Your task to perform on an android device: change the clock display to show seconds Image 0: 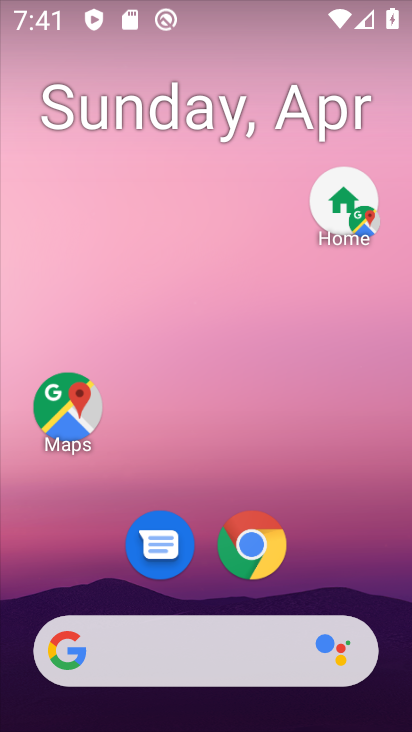
Step 0: drag from (330, 482) to (314, 133)
Your task to perform on an android device: change the clock display to show seconds Image 1: 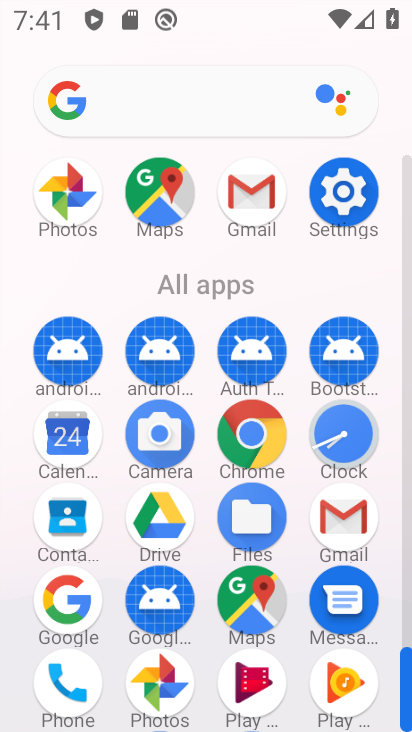
Step 1: click (350, 418)
Your task to perform on an android device: change the clock display to show seconds Image 2: 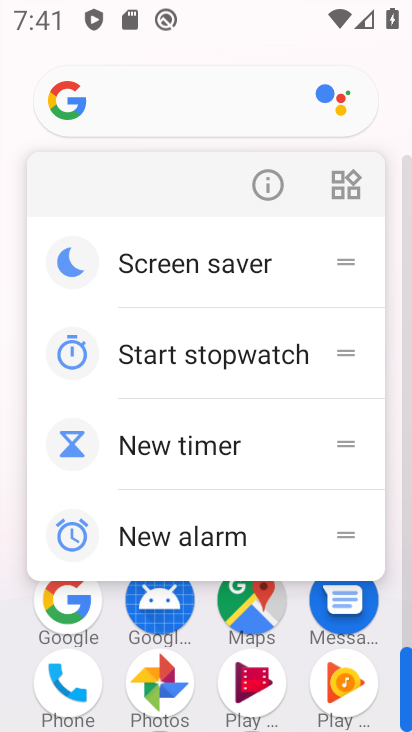
Step 2: press back button
Your task to perform on an android device: change the clock display to show seconds Image 3: 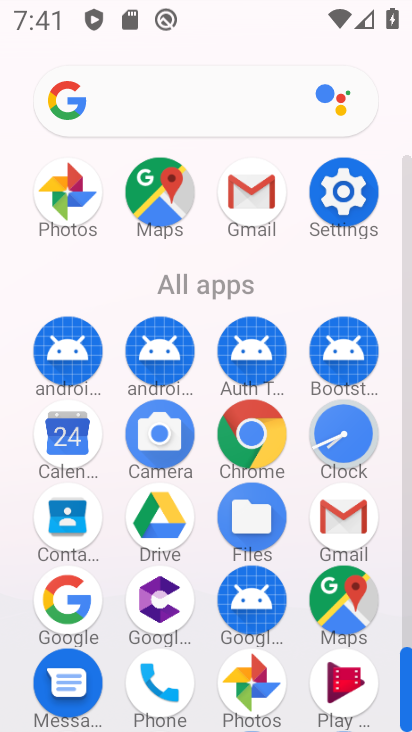
Step 3: click (332, 431)
Your task to perform on an android device: change the clock display to show seconds Image 4: 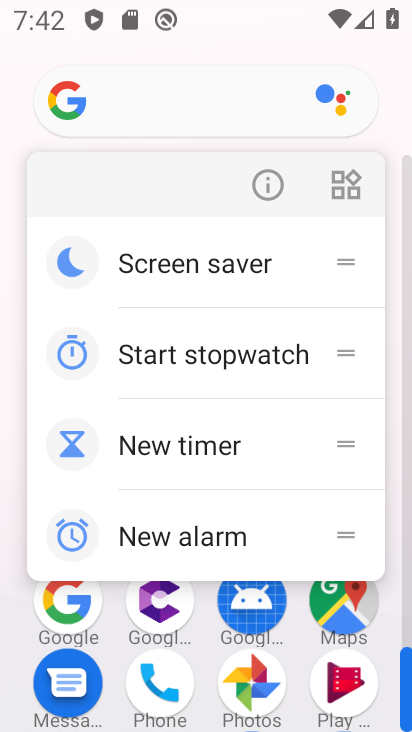
Step 4: press back button
Your task to perform on an android device: change the clock display to show seconds Image 5: 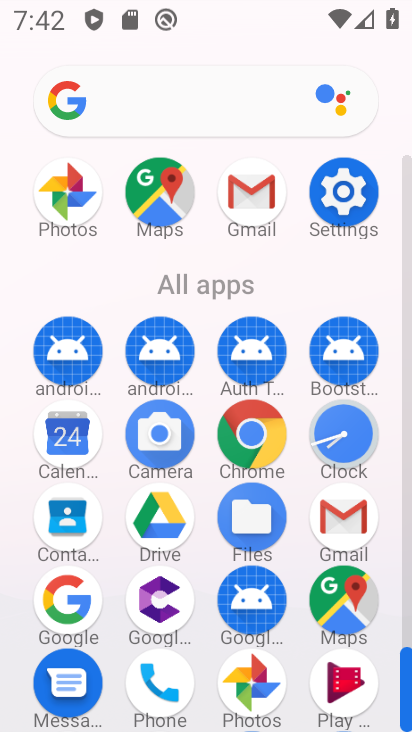
Step 5: click (349, 430)
Your task to perform on an android device: change the clock display to show seconds Image 6: 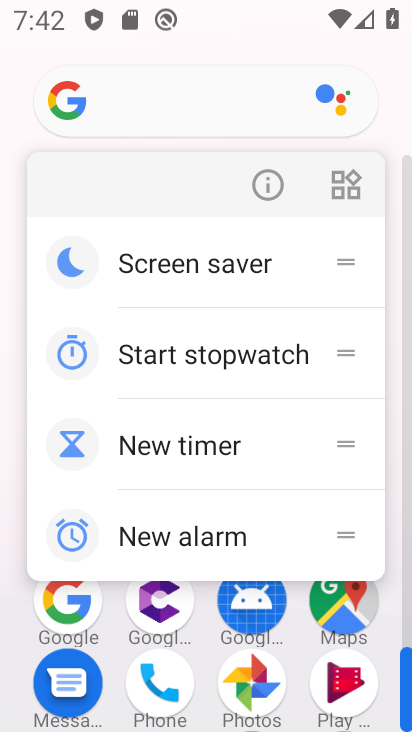
Step 6: press back button
Your task to perform on an android device: change the clock display to show seconds Image 7: 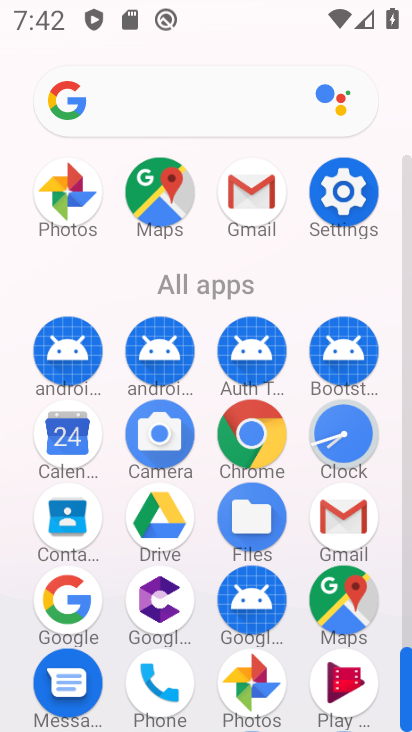
Step 7: click (347, 420)
Your task to perform on an android device: change the clock display to show seconds Image 8: 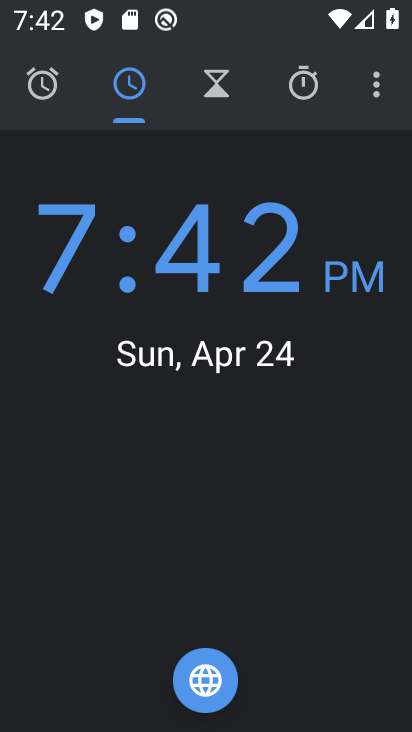
Step 8: click (365, 89)
Your task to perform on an android device: change the clock display to show seconds Image 9: 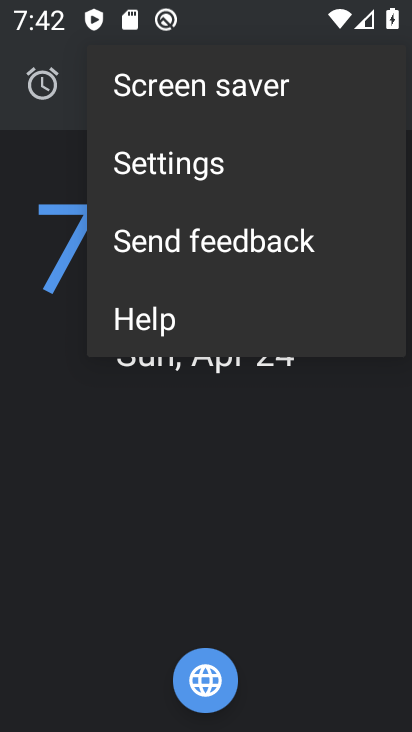
Step 9: click (213, 165)
Your task to perform on an android device: change the clock display to show seconds Image 10: 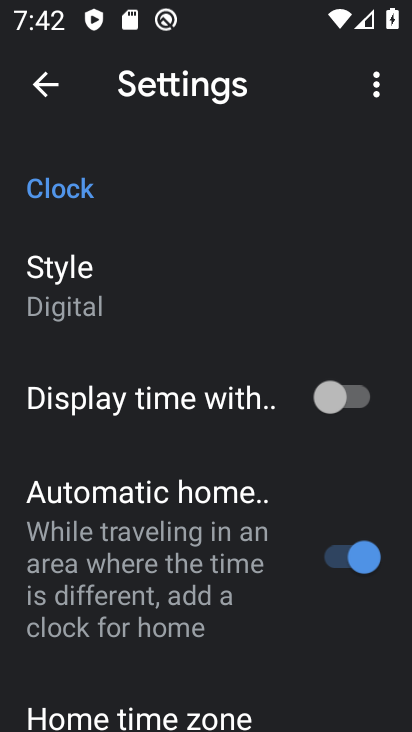
Step 10: click (342, 401)
Your task to perform on an android device: change the clock display to show seconds Image 11: 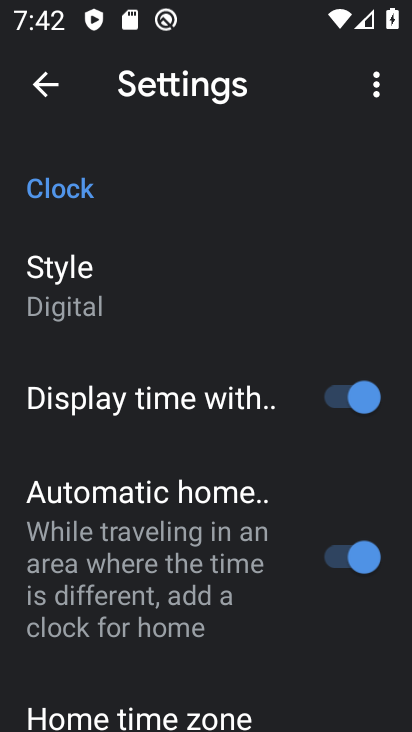
Step 11: task complete